Your task to perform on an android device: open device folders in google photos Image 0: 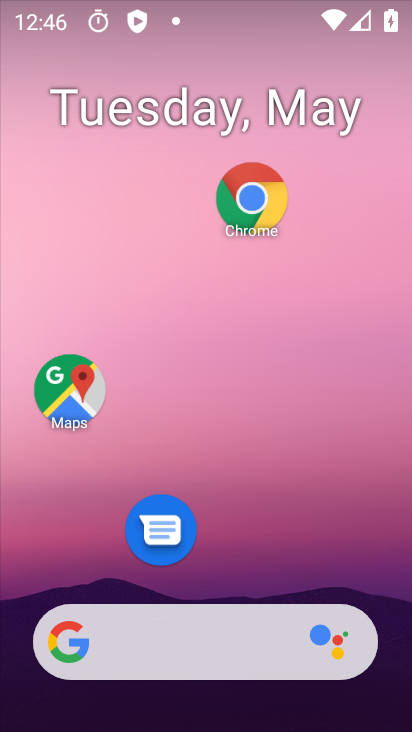
Step 0: drag from (64, 576) to (104, 297)
Your task to perform on an android device: open device folders in google photos Image 1: 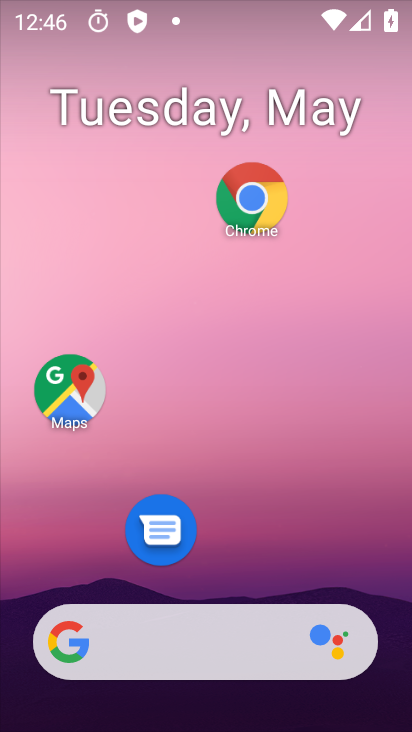
Step 1: drag from (244, 582) to (245, 176)
Your task to perform on an android device: open device folders in google photos Image 2: 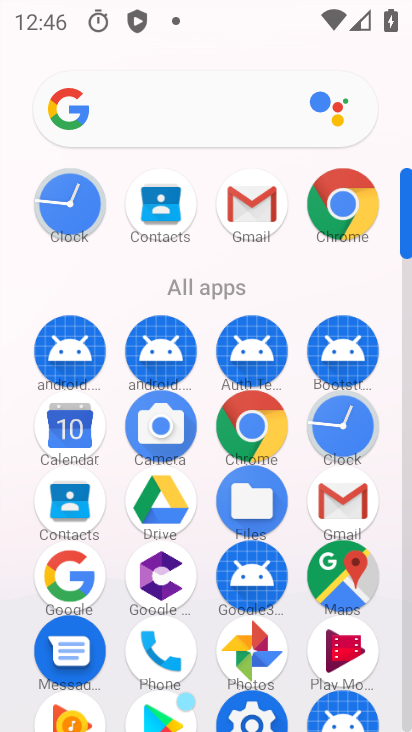
Step 2: click (249, 656)
Your task to perform on an android device: open device folders in google photos Image 3: 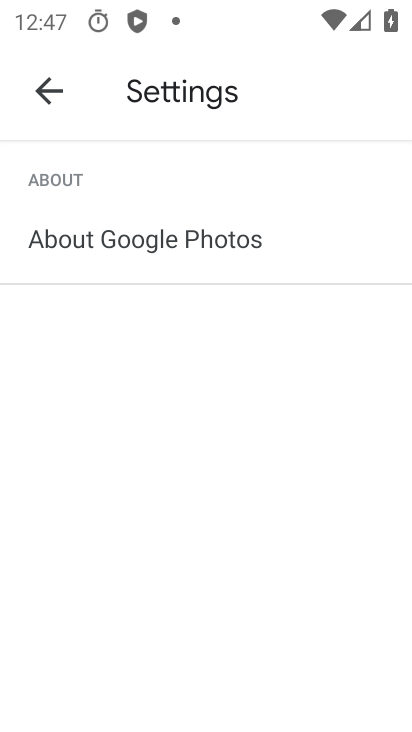
Step 3: click (59, 100)
Your task to perform on an android device: open device folders in google photos Image 4: 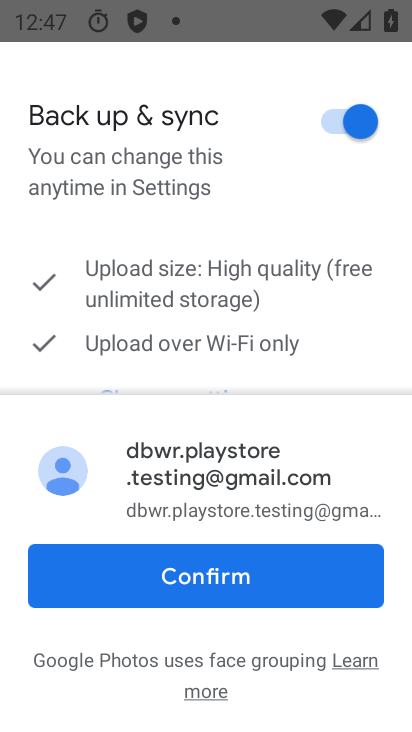
Step 4: click (273, 574)
Your task to perform on an android device: open device folders in google photos Image 5: 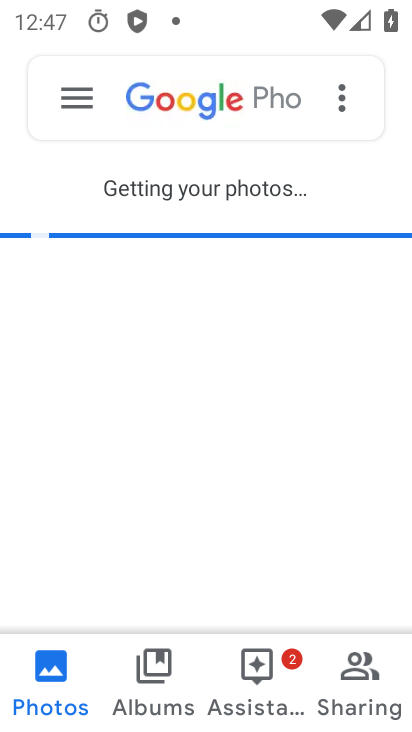
Step 5: click (60, 103)
Your task to perform on an android device: open device folders in google photos Image 6: 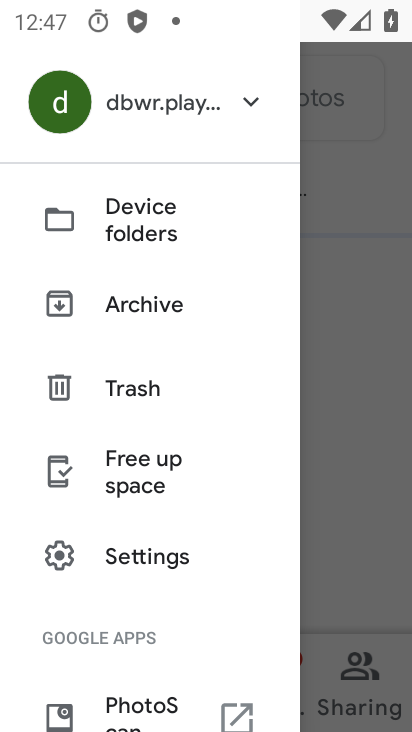
Step 6: click (128, 222)
Your task to perform on an android device: open device folders in google photos Image 7: 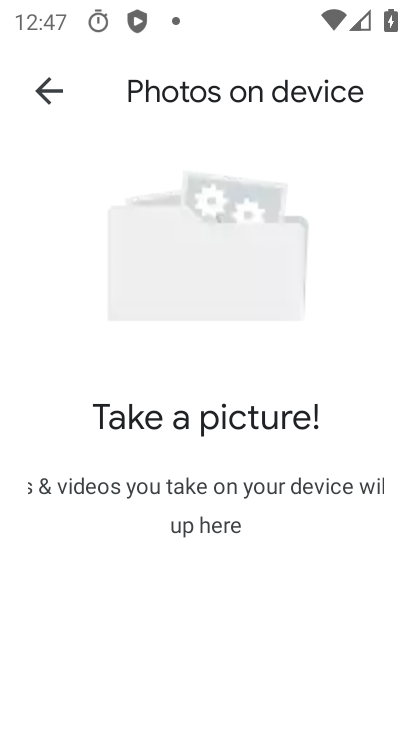
Step 7: task complete